Your task to perform on an android device: Open Google Chrome Image 0: 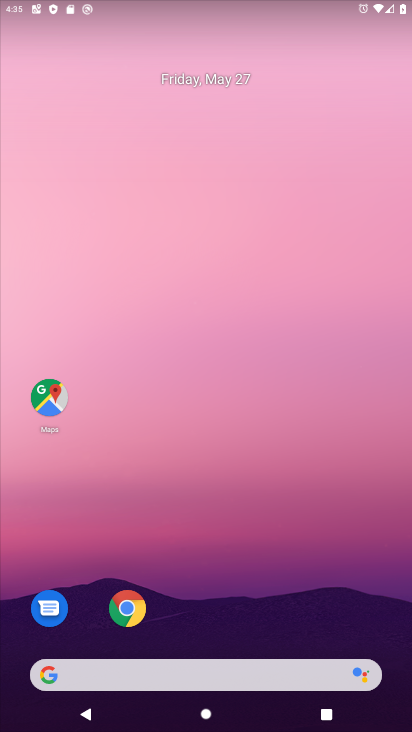
Step 0: drag from (208, 610) to (208, 254)
Your task to perform on an android device: Open Google Chrome Image 1: 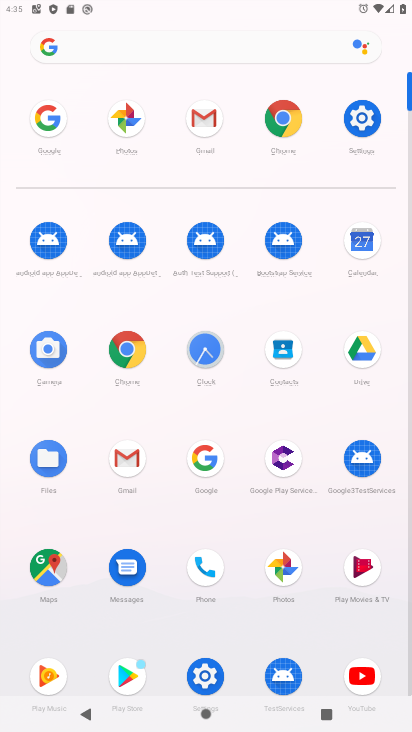
Step 1: click (273, 122)
Your task to perform on an android device: Open Google Chrome Image 2: 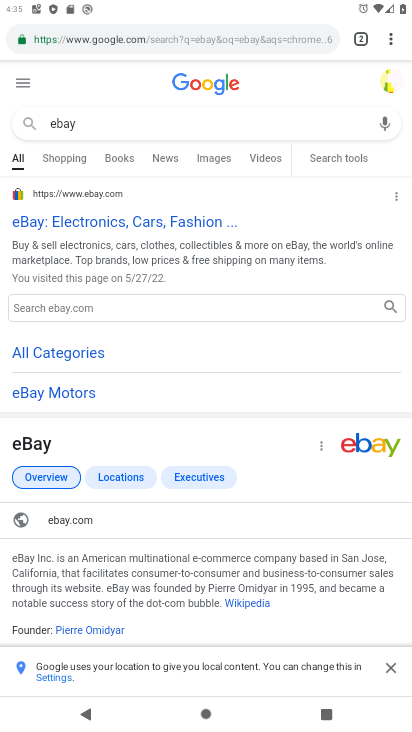
Step 2: task complete